Your task to perform on an android device: When is my next appointment? Image 0: 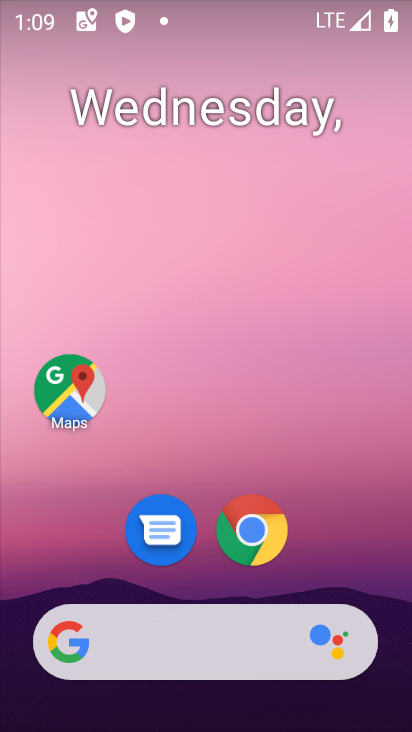
Step 0: press home button
Your task to perform on an android device: When is my next appointment? Image 1: 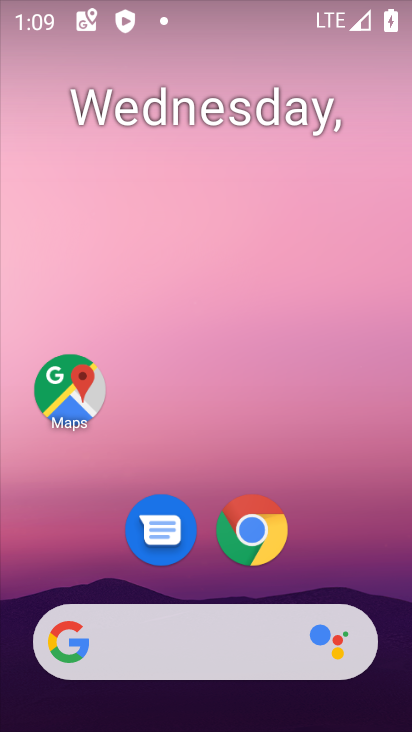
Step 1: drag from (374, 553) to (376, 157)
Your task to perform on an android device: When is my next appointment? Image 2: 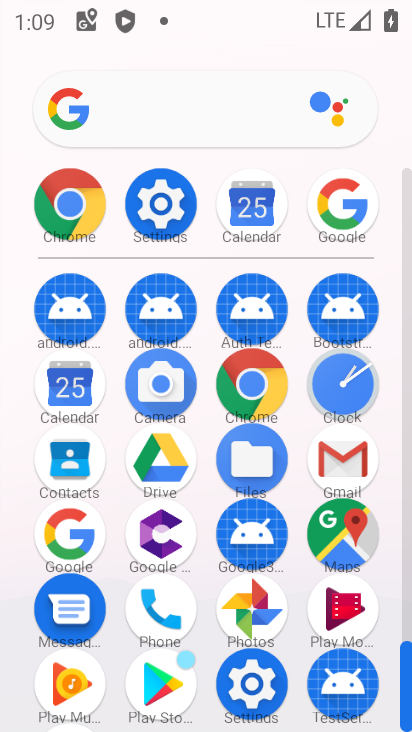
Step 2: click (75, 404)
Your task to perform on an android device: When is my next appointment? Image 3: 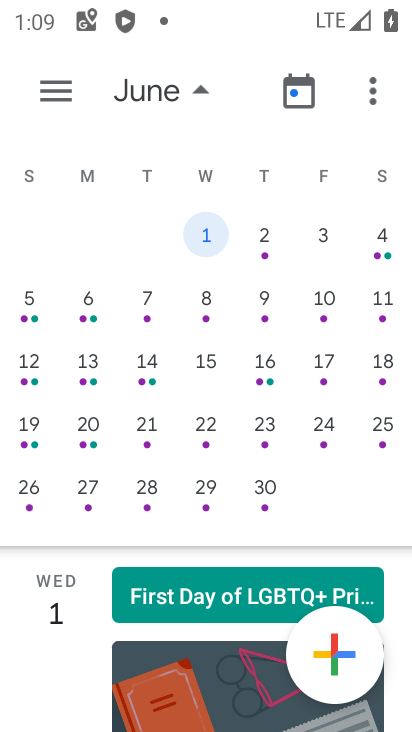
Step 3: drag from (99, 702) to (107, 275)
Your task to perform on an android device: When is my next appointment? Image 4: 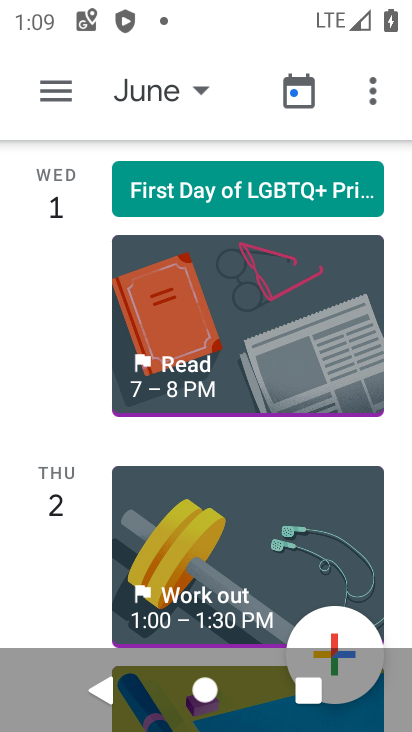
Step 4: drag from (95, 683) to (107, 232)
Your task to perform on an android device: When is my next appointment? Image 5: 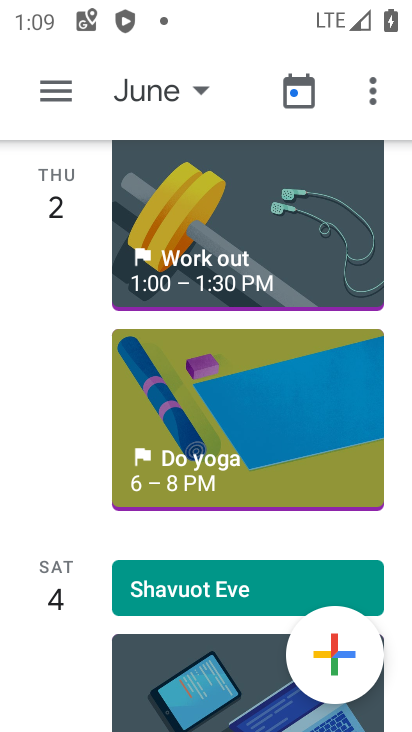
Step 5: drag from (73, 598) to (122, 247)
Your task to perform on an android device: When is my next appointment? Image 6: 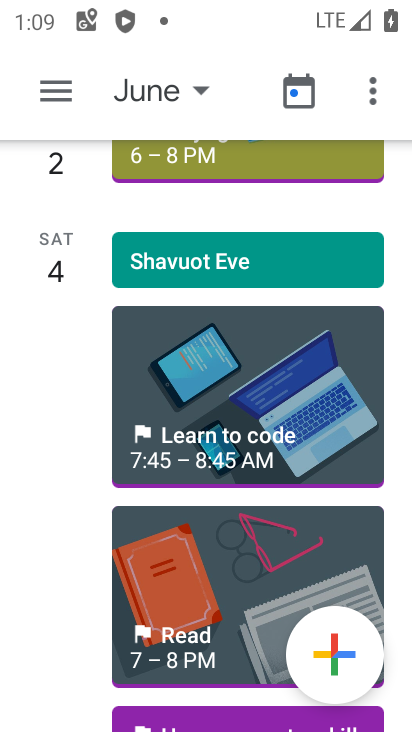
Step 6: drag from (81, 599) to (119, 193)
Your task to perform on an android device: When is my next appointment? Image 7: 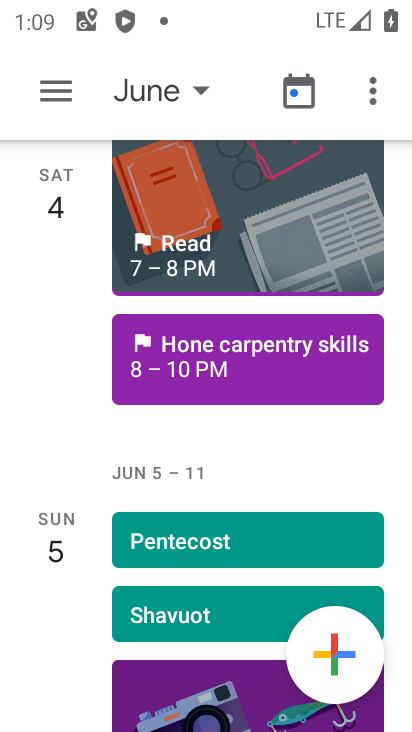
Step 7: drag from (86, 578) to (98, 254)
Your task to perform on an android device: When is my next appointment? Image 8: 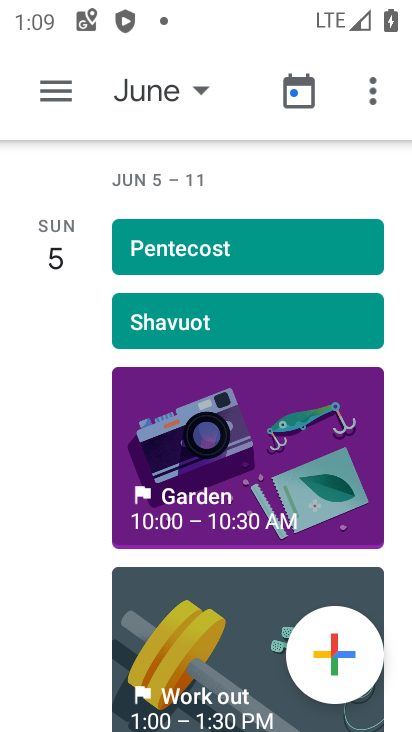
Step 8: drag from (70, 613) to (123, 203)
Your task to perform on an android device: When is my next appointment? Image 9: 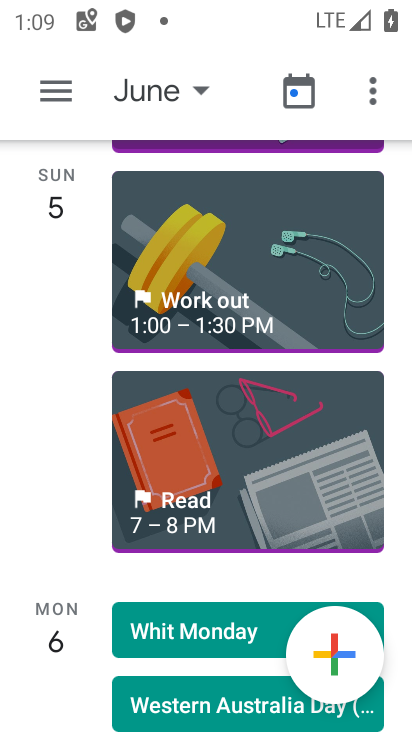
Step 9: drag from (77, 615) to (98, 153)
Your task to perform on an android device: When is my next appointment? Image 10: 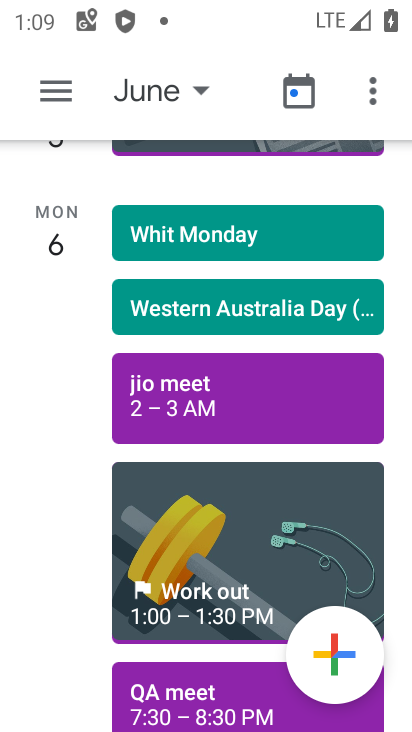
Step 10: drag from (91, 639) to (86, 138)
Your task to perform on an android device: When is my next appointment? Image 11: 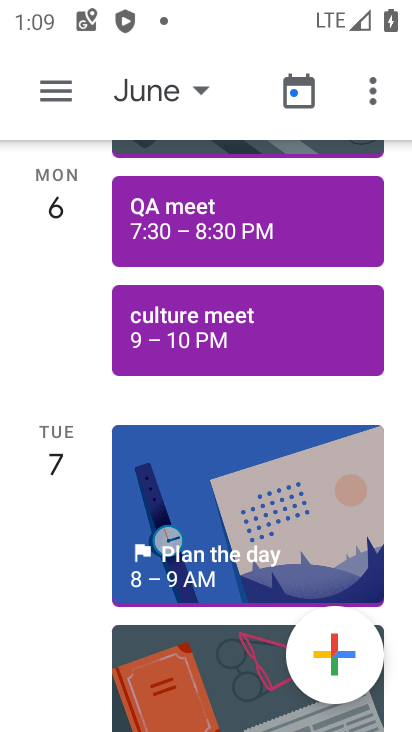
Step 11: click (239, 330)
Your task to perform on an android device: When is my next appointment? Image 12: 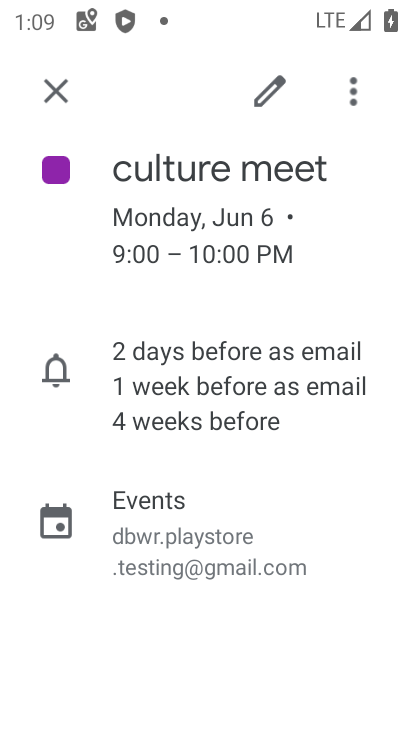
Step 12: task complete